Your task to perform on an android device: toggle data saver in the chrome app Image 0: 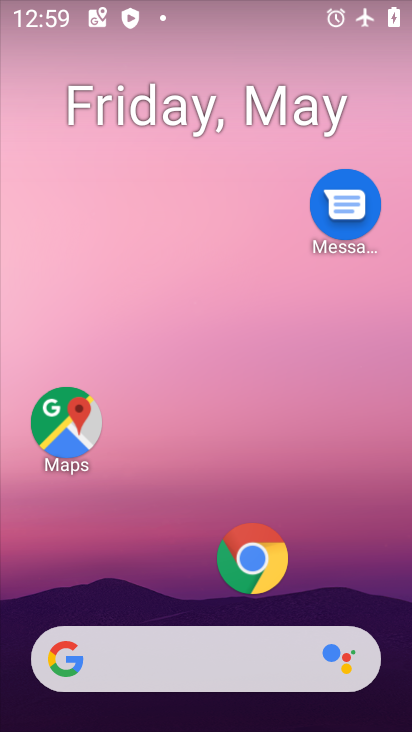
Step 0: drag from (185, 540) to (181, 267)
Your task to perform on an android device: toggle data saver in the chrome app Image 1: 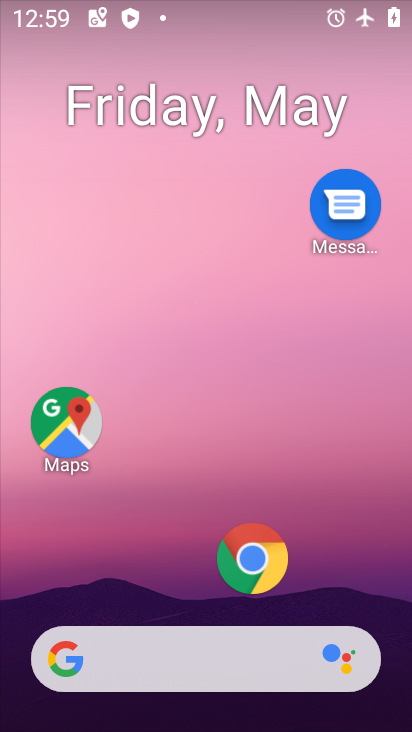
Step 1: click (248, 577)
Your task to perform on an android device: toggle data saver in the chrome app Image 2: 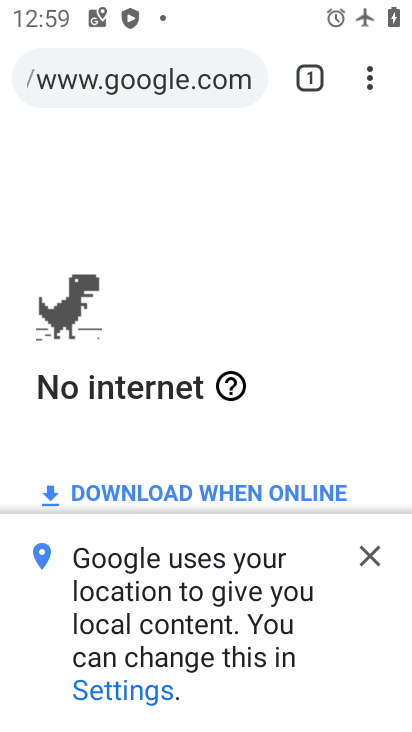
Step 2: click (365, 77)
Your task to perform on an android device: toggle data saver in the chrome app Image 3: 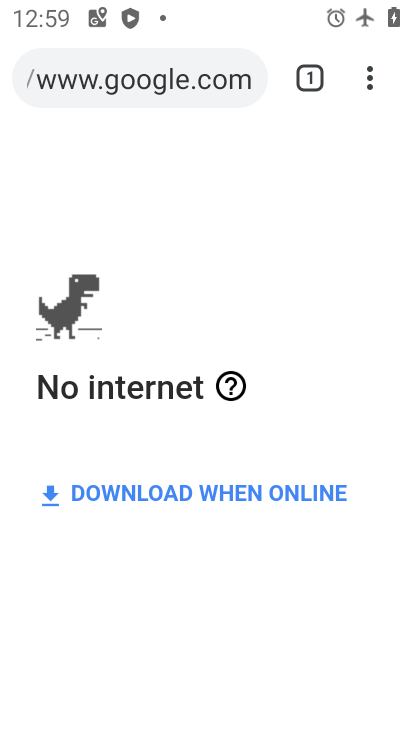
Step 3: click (383, 159)
Your task to perform on an android device: toggle data saver in the chrome app Image 4: 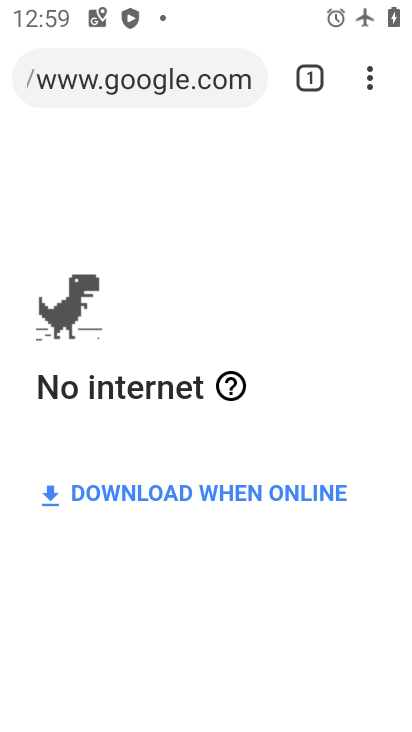
Step 4: click (371, 80)
Your task to perform on an android device: toggle data saver in the chrome app Image 5: 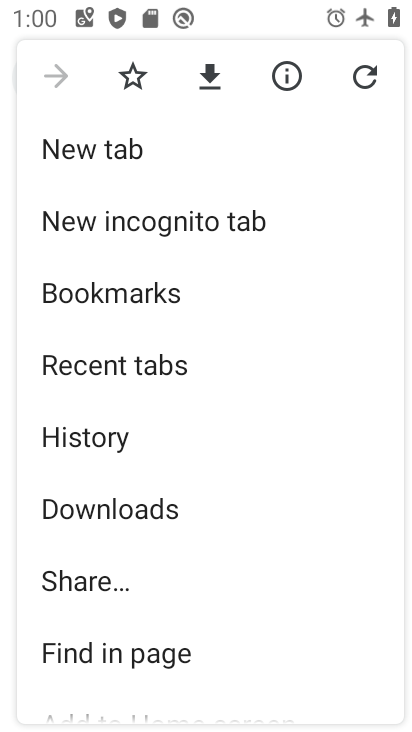
Step 5: drag from (151, 549) to (165, 201)
Your task to perform on an android device: toggle data saver in the chrome app Image 6: 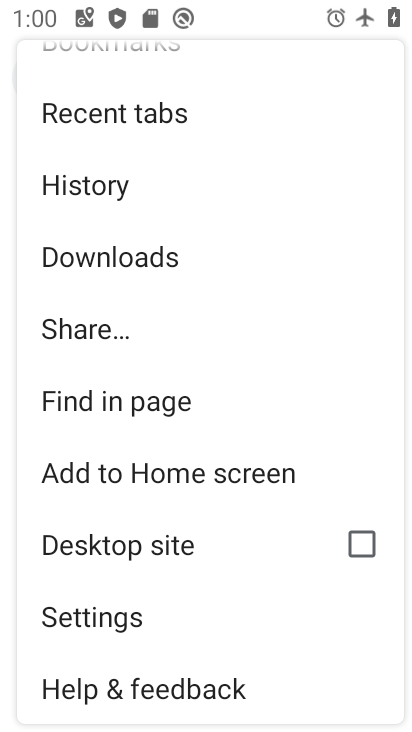
Step 6: click (142, 607)
Your task to perform on an android device: toggle data saver in the chrome app Image 7: 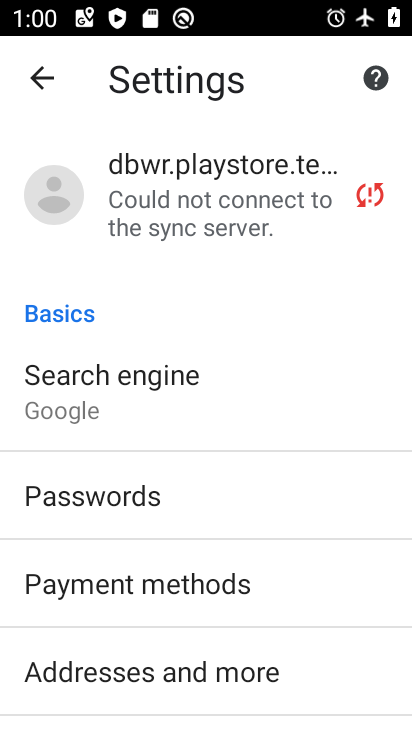
Step 7: drag from (144, 543) to (128, 255)
Your task to perform on an android device: toggle data saver in the chrome app Image 8: 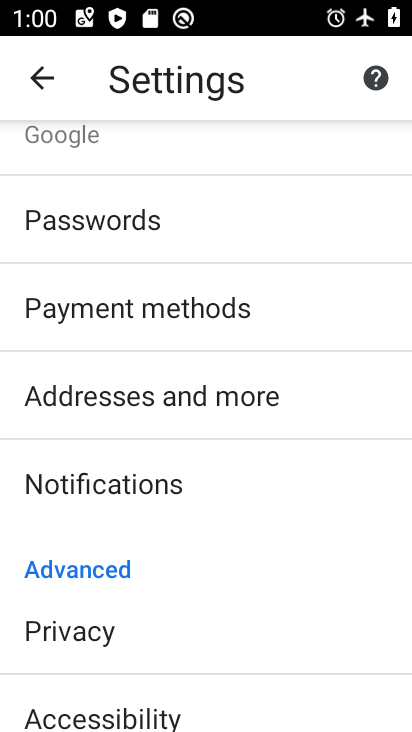
Step 8: drag from (152, 548) to (161, 354)
Your task to perform on an android device: toggle data saver in the chrome app Image 9: 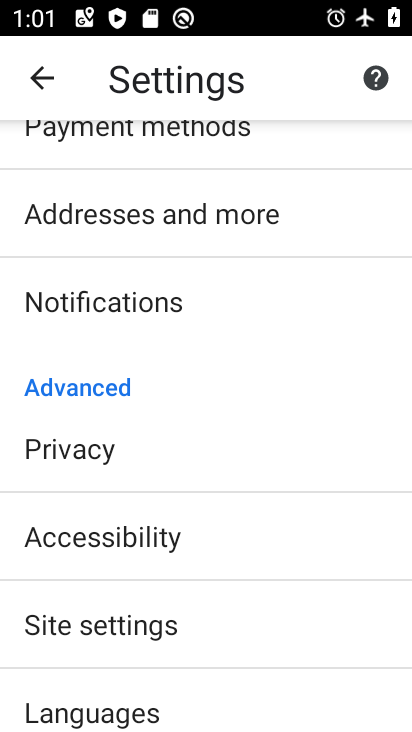
Step 9: drag from (119, 587) to (127, 334)
Your task to perform on an android device: toggle data saver in the chrome app Image 10: 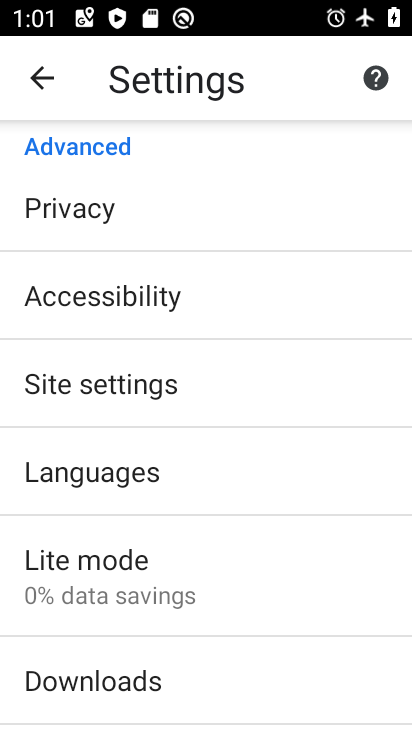
Step 10: click (138, 562)
Your task to perform on an android device: toggle data saver in the chrome app Image 11: 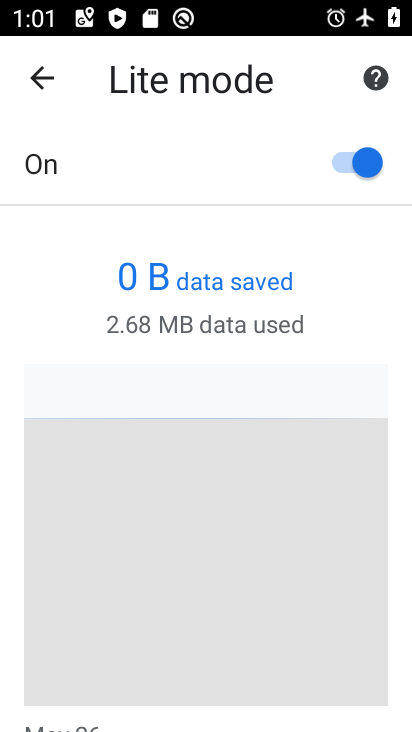
Step 11: click (325, 175)
Your task to perform on an android device: toggle data saver in the chrome app Image 12: 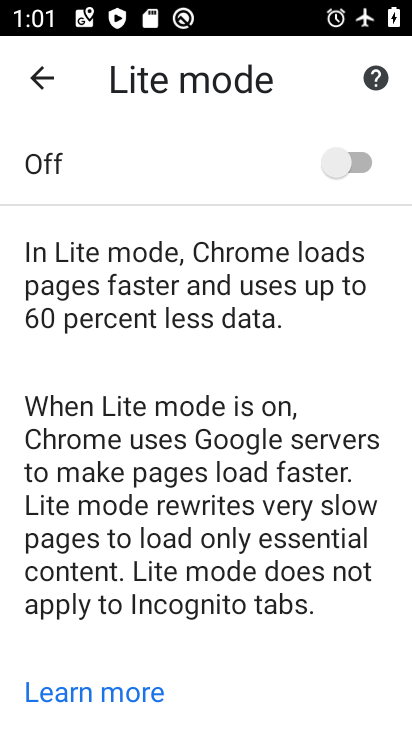
Step 12: task complete